Your task to perform on an android device: Open calendar and show me the first week of next month Image 0: 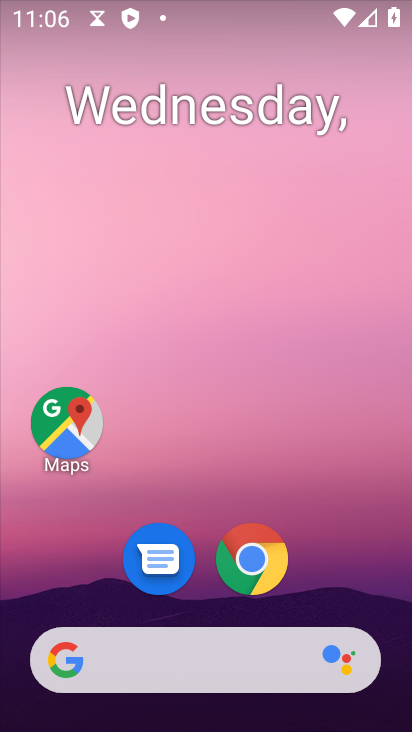
Step 0: drag from (378, 613) to (273, 57)
Your task to perform on an android device: Open calendar and show me the first week of next month Image 1: 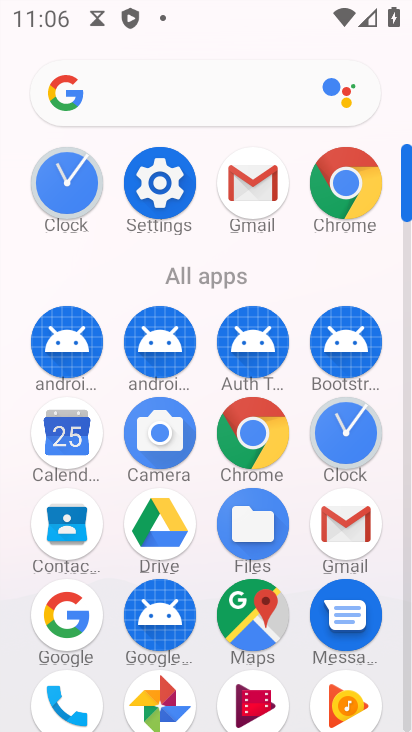
Step 1: click (78, 440)
Your task to perform on an android device: Open calendar and show me the first week of next month Image 2: 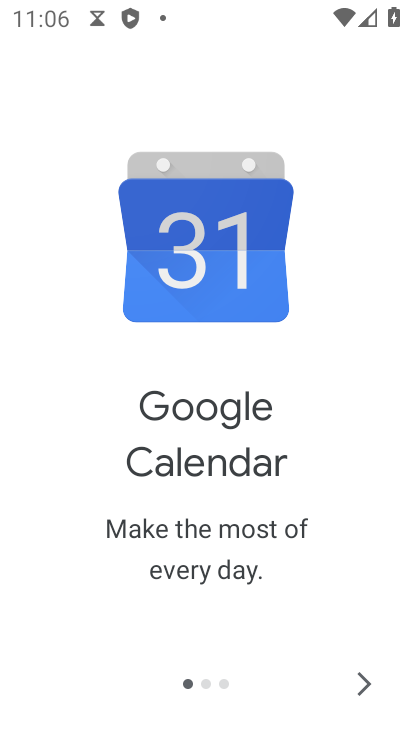
Step 2: click (372, 678)
Your task to perform on an android device: Open calendar and show me the first week of next month Image 3: 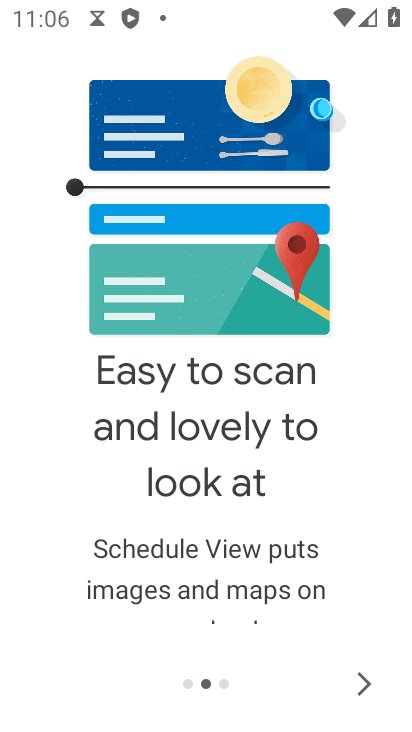
Step 3: click (372, 678)
Your task to perform on an android device: Open calendar and show me the first week of next month Image 4: 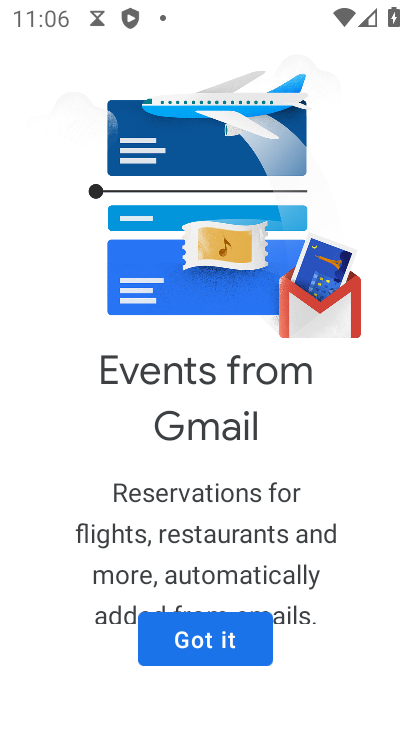
Step 4: click (222, 643)
Your task to perform on an android device: Open calendar and show me the first week of next month Image 5: 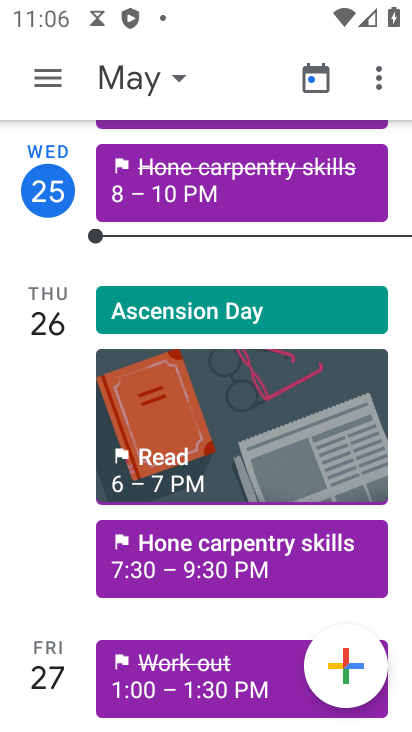
Step 5: click (144, 91)
Your task to perform on an android device: Open calendar and show me the first week of next month Image 6: 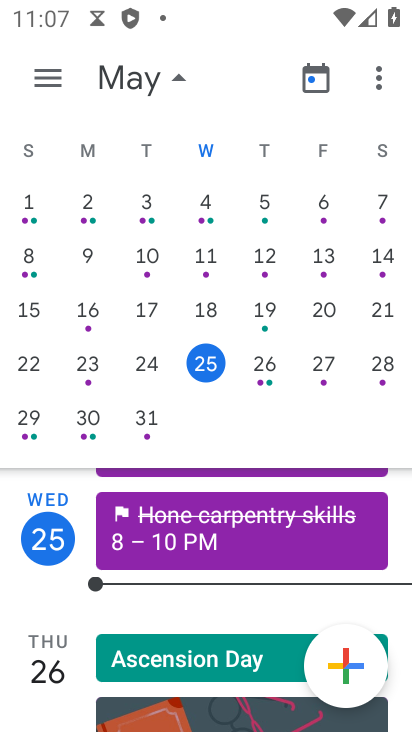
Step 6: click (47, 73)
Your task to perform on an android device: Open calendar and show me the first week of next month Image 7: 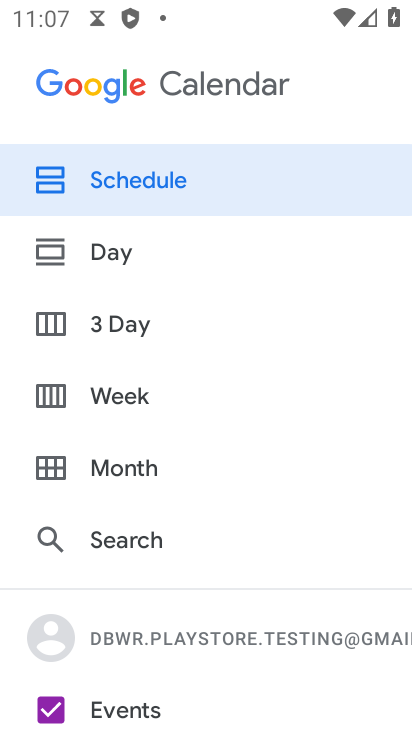
Step 7: click (111, 393)
Your task to perform on an android device: Open calendar and show me the first week of next month Image 8: 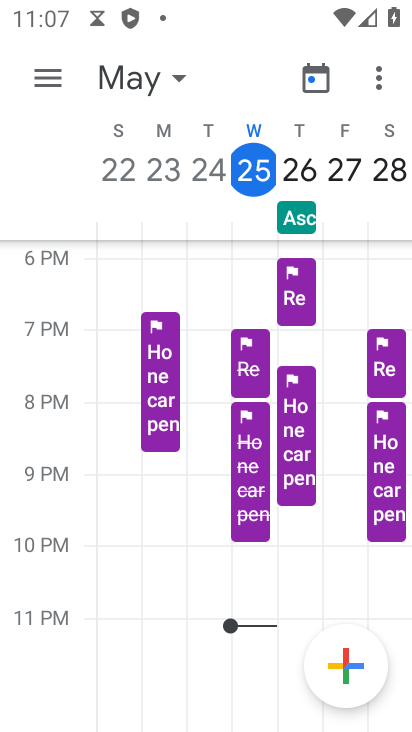
Step 8: click (137, 74)
Your task to perform on an android device: Open calendar and show me the first week of next month Image 9: 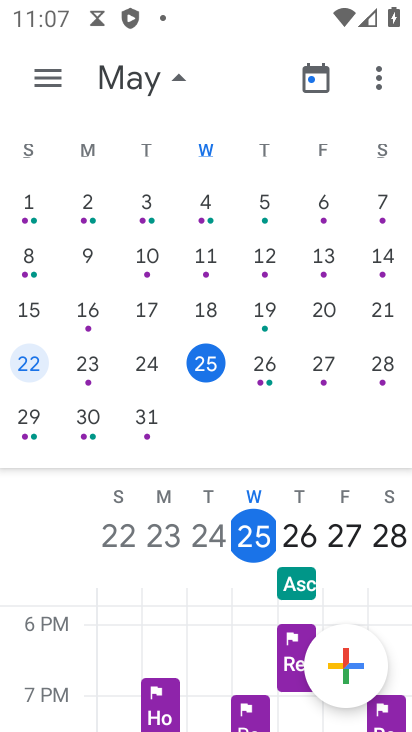
Step 9: drag from (390, 299) to (37, 292)
Your task to perform on an android device: Open calendar and show me the first week of next month Image 10: 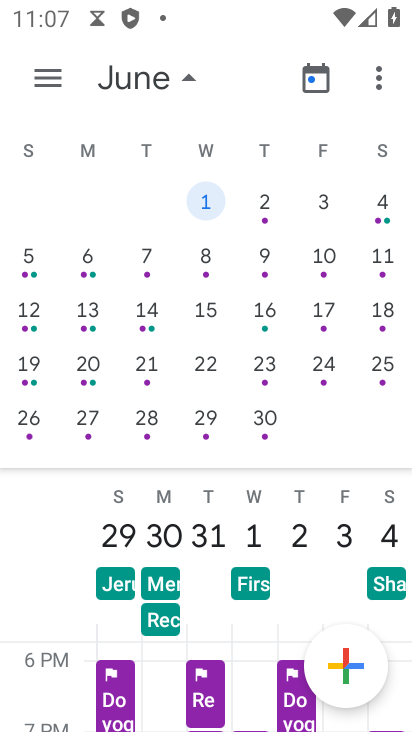
Step 10: click (207, 204)
Your task to perform on an android device: Open calendar and show me the first week of next month Image 11: 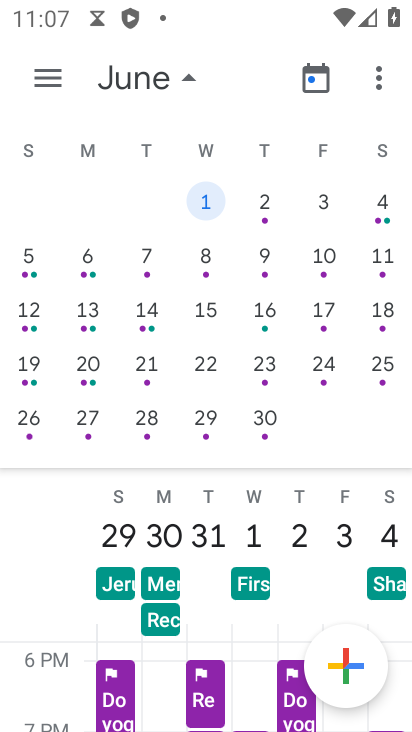
Step 11: click (167, 72)
Your task to perform on an android device: Open calendar and show me the first week of next month Image 12: 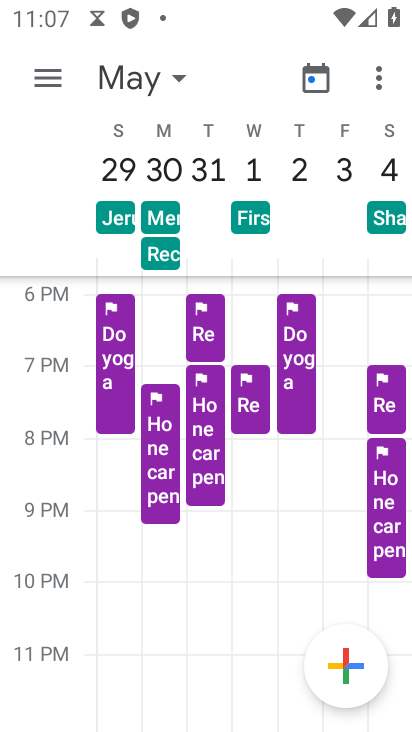
Step 12: task complete